Your task to perform on an android device: toggle wifi Image 0: 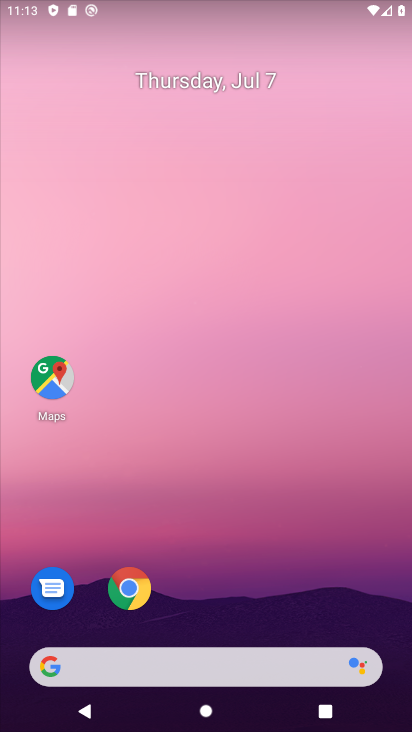
Step 0: drag from (233, 610) to (111, 52)
Your task to perform on an android device: toggle wifi Image 1: 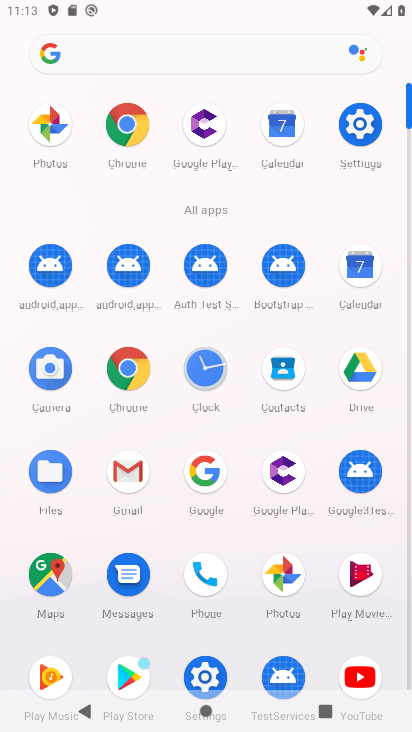
Step 1: click (374, 130)
Your task to perform on an android device: toggle wifi Image 2: 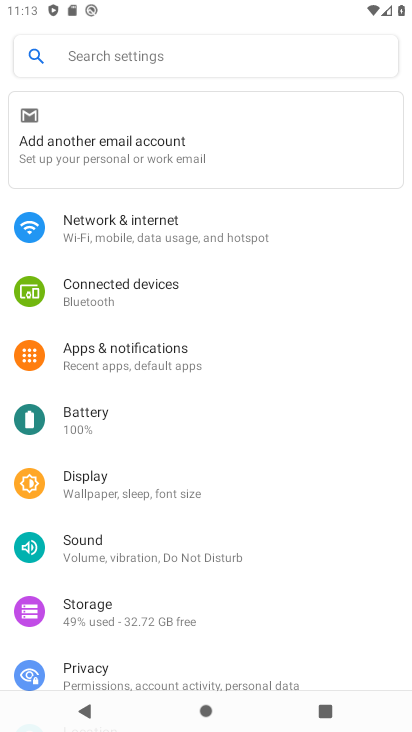
Step 2: click (125, 222)
Your task to perform on an android device: toggle wifi Image 3: 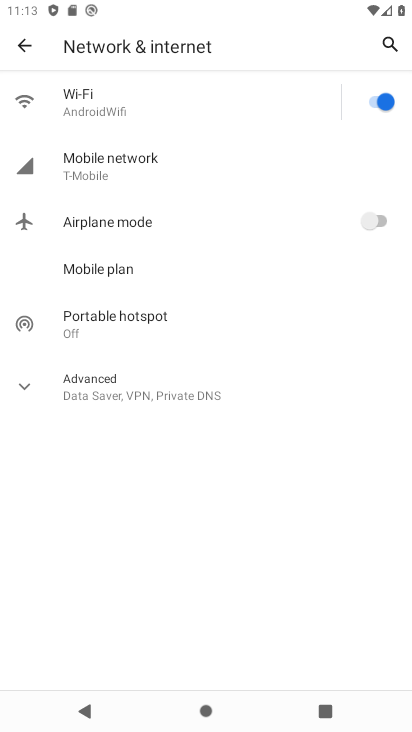
Step 3: click (65, 124)
Your task to perform on an android device: toggle wifi Image 4: 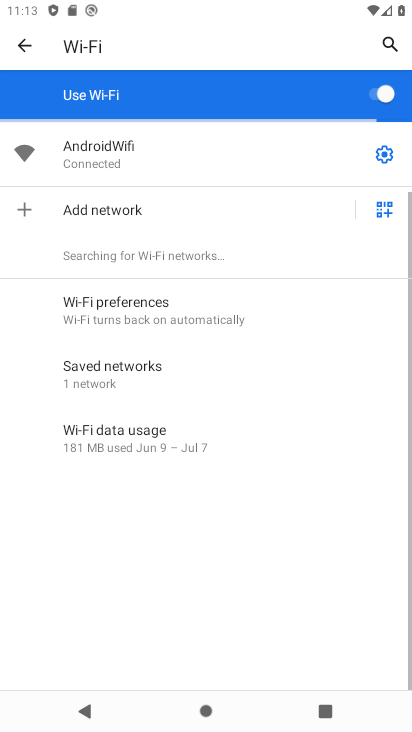
Step 4: click (364, 98)
Your task to perform on an android device: toggle wifi Image 5: 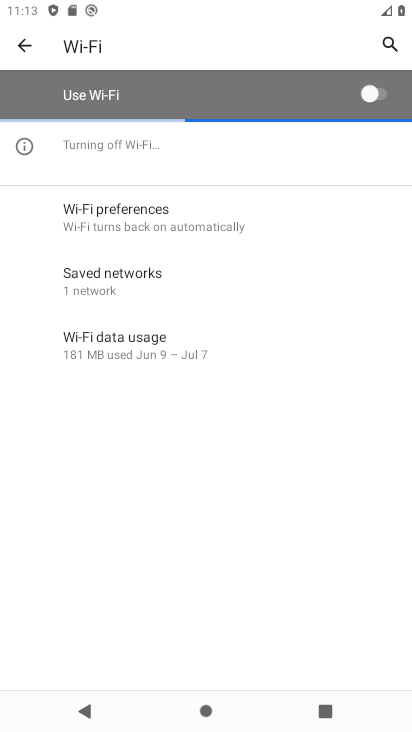
Step 5: task complete